Your task to perform on an android device: Open Chrome and go to settings Image 0: 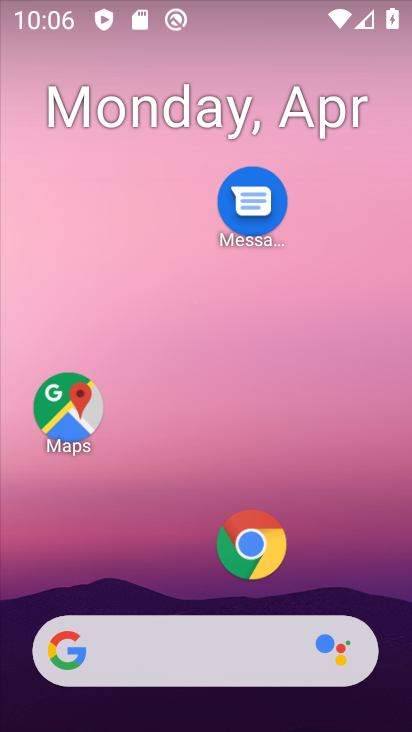
Step 0: press home button
Your task to perform on an android device: Open Chrome and go to settings Image 1: 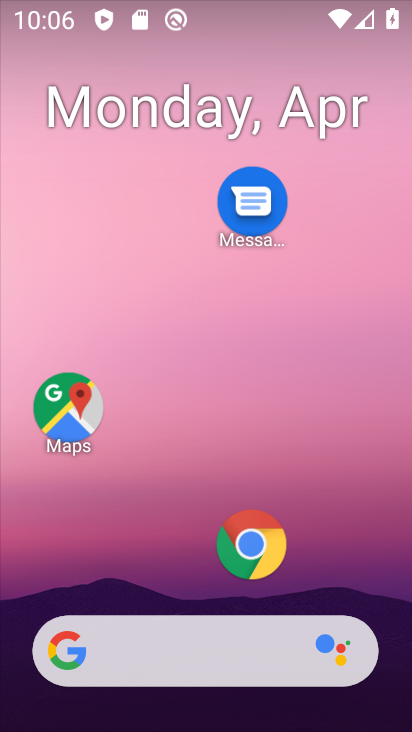
Step 1: click (249, 539)
Your task to perform on an android device: Open Chrome and go to settings Image 2: 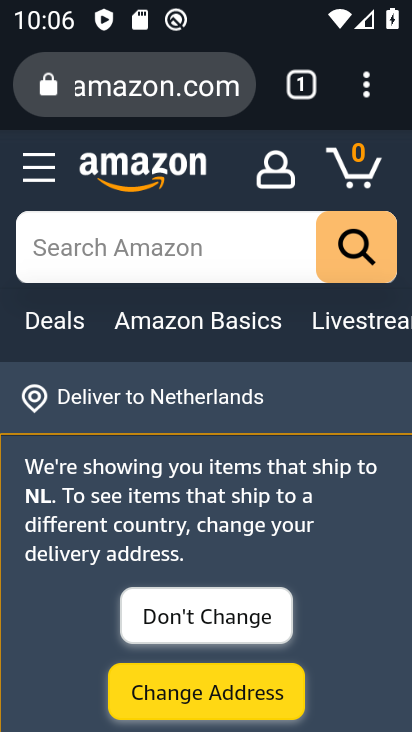
Step 2: click (366, 89)
Your task to perform on an android device: Open Chrome and go to settings Image 3: 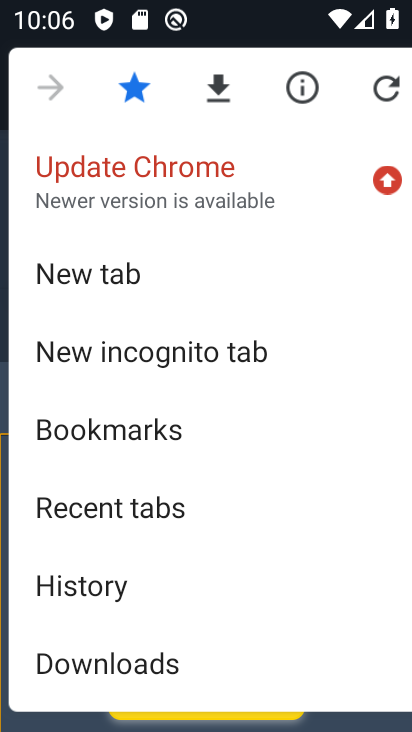
Step 3: drag from (211, 592) to (223, 122)
Your task to perform on an android device: Open Chrome and go to settings Image 4: 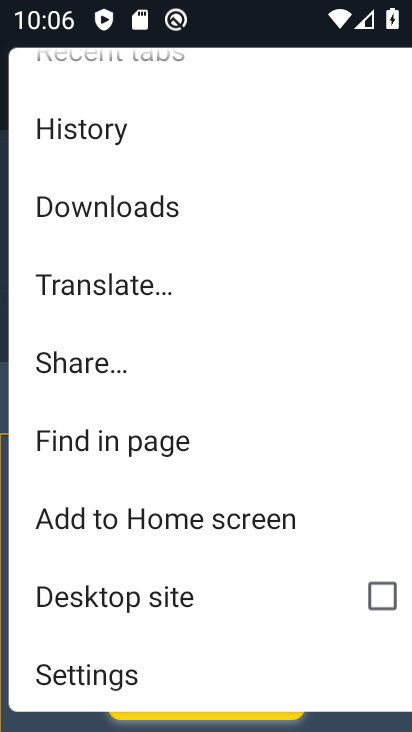
Step 4: click (154, 668)
Your task to perform on an android device: Open Chrome and go to settings Image 5: 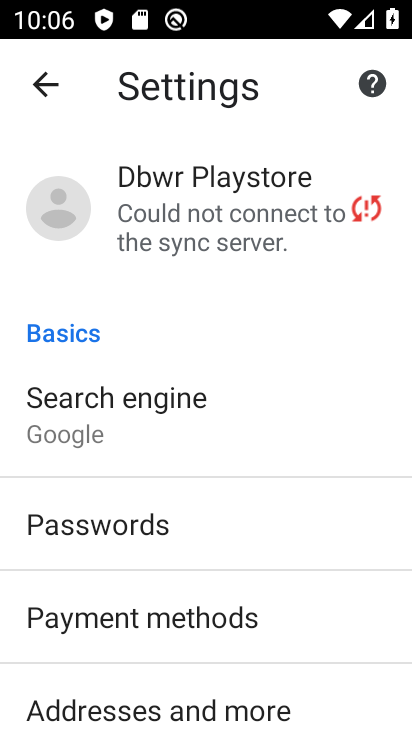
Step 5: task complete